Your task to perform on an android device: toggle translation in the chrome app Image 0: 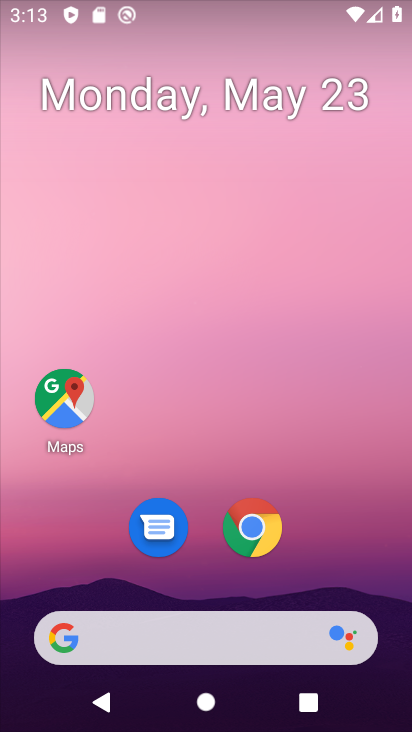
Step 0: click (268, 543)
Your task to perform on an android device: toggle translation in the chrome app Image 1: 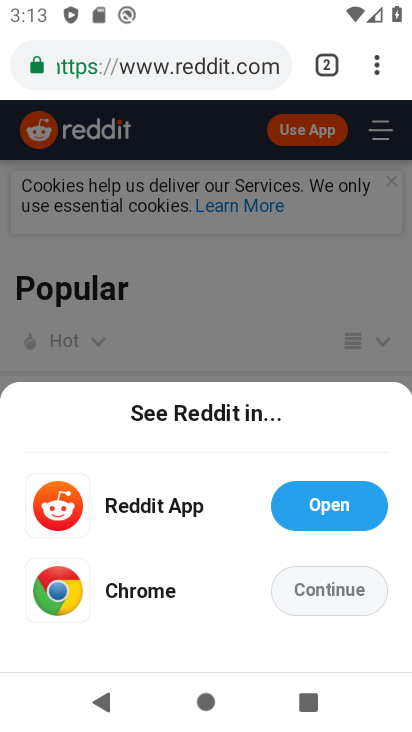
Step 1: click (385, 53)
Your task to perform on an android device: toggle translation in the chrome app Image 2: 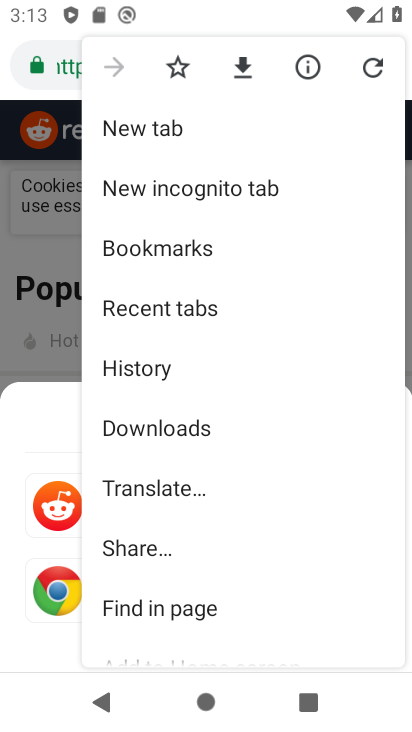
Step 2: drag from (214, 513) to (228, 155)
Your task to perform on an android device: toggle translation in the chrome app Image 3: 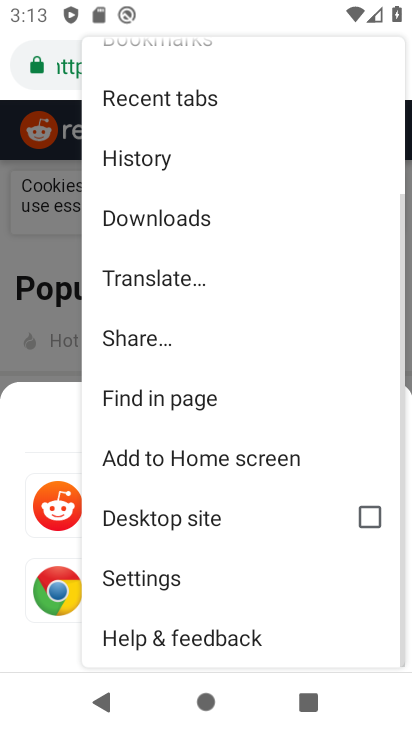
Step 3: click (162, 583)
Your task to perform on an android device: toggle translation in the chrome app Image 4: 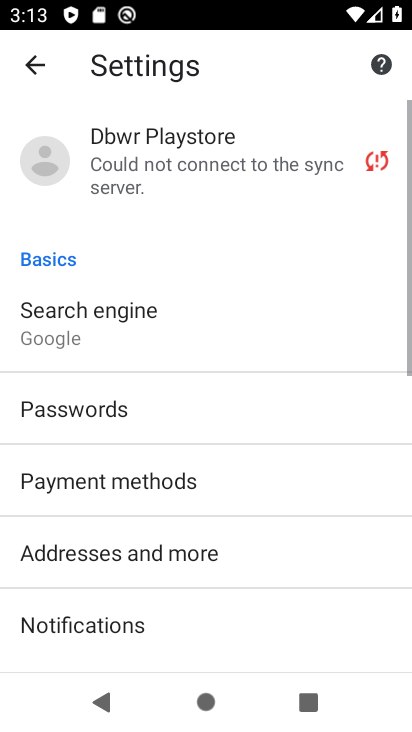
Step 4: drag from (209, 528) to (226, 168)
Your task to perform on an android device: toggle translation in the chrome app Image 5: 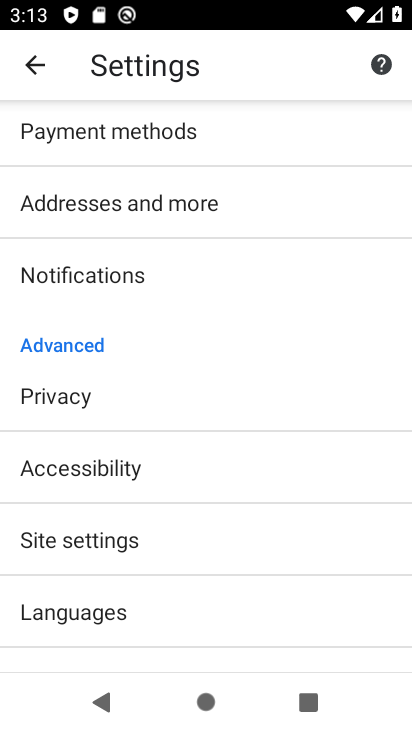
Step 5: drag from (184, 565) to (192, 170)
Your task to perform on an android device: toggle translation in the chrome app Image 6: 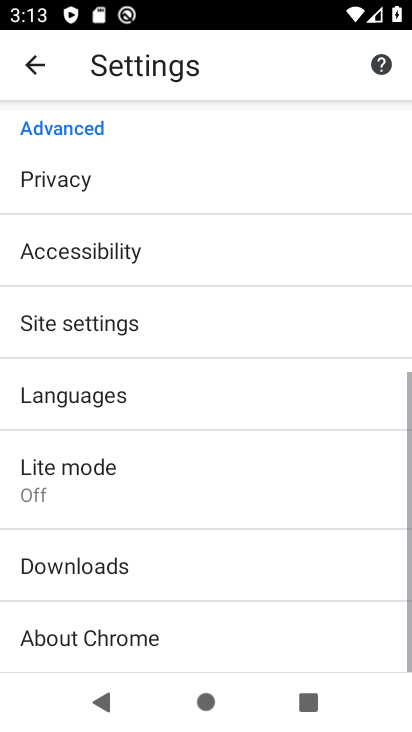
Step 6: click (192, 414)
Your task to perform on an android device: toggle translation in the chrome app Image 7: 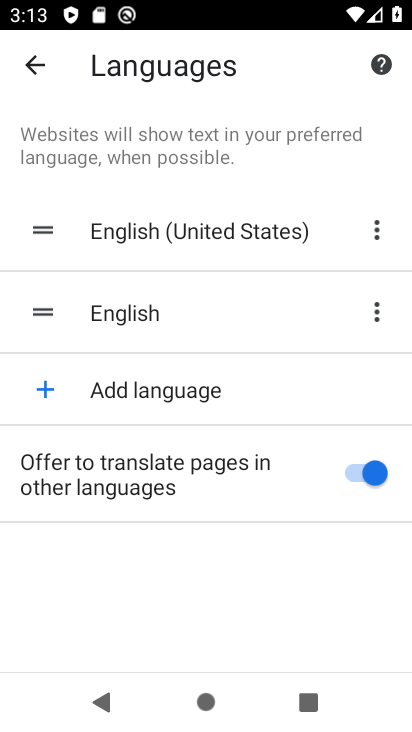
Step 7: click (374, 486)
Your task to perform on an android device: toggle translation in the chrome app Image 8: 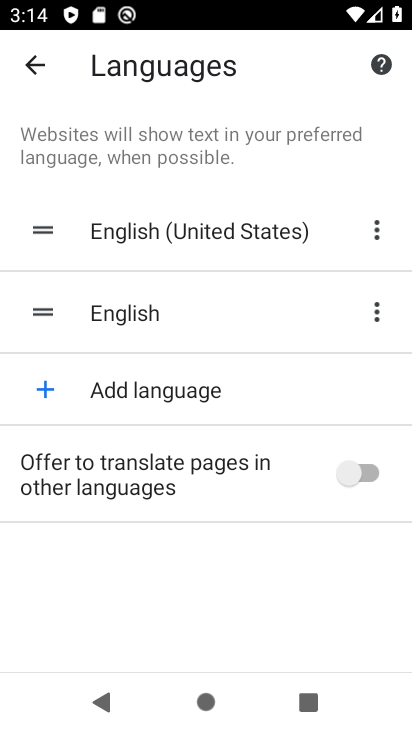
Step 8: task complete